Your task to perform on an android device: Open Chrome and go to the settings page Image 0: 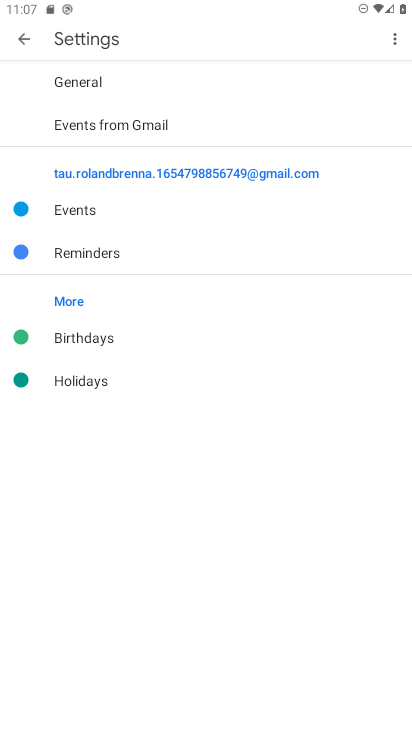
Step 0: press home button
Your task to perform on an android device: Open Chrome and go to the settings page Image 1: 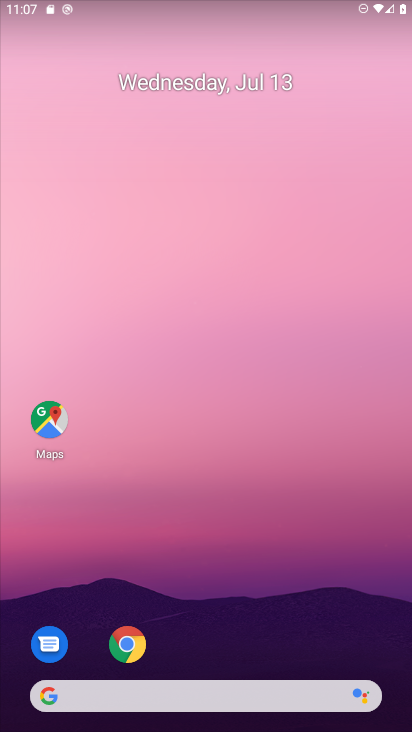
Step 1: click (127, 646)
Your task to perform on an android device: Open Chrome and go to the settings page Image 2: 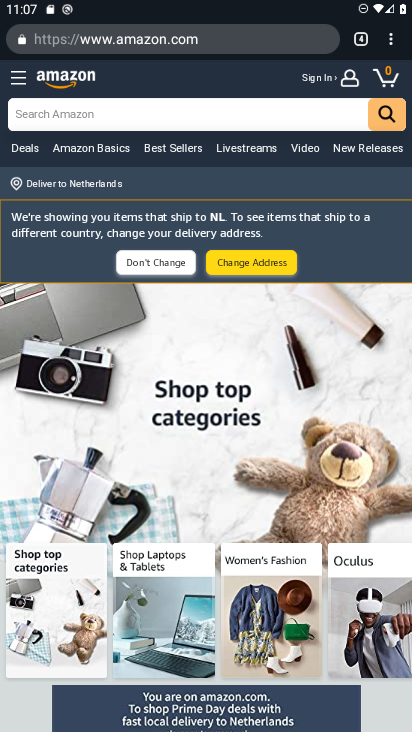
Step 2: click (393, 45)
Your task to perform on an android device: Open Chrome and go to the settings page Image 3: 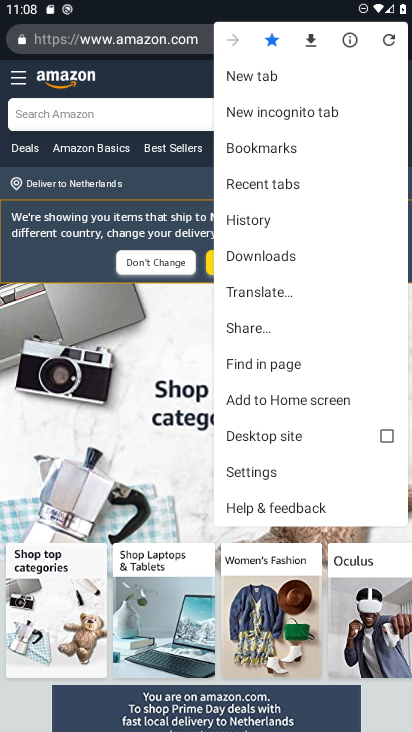
Step 3: click (251, 468)
Your task to perform on an android device: Open Chrome and go to the settings page Image 4: 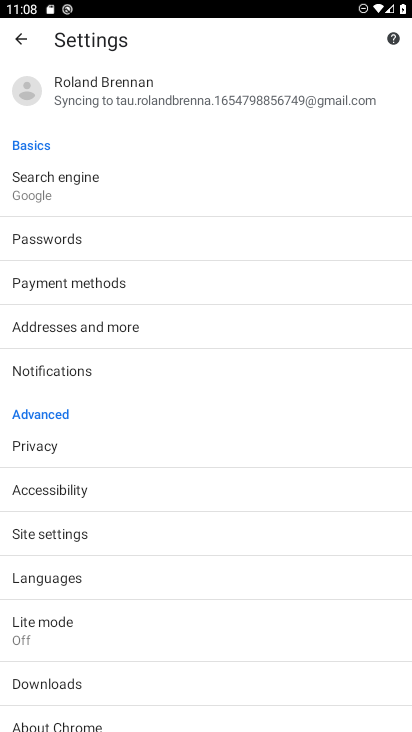
Step 4: task complete